Your task to perform on an android device: turn off javascript in the chrome app Image 0: 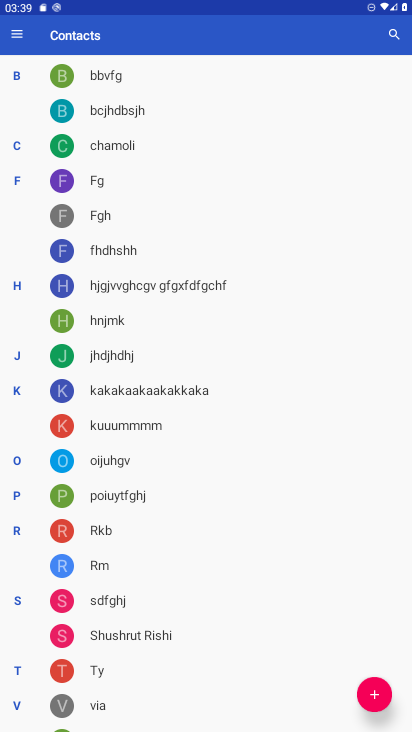
Step 0: press home button
Your task to perform on an android device: turn off javascript in the chrome app Image 1: 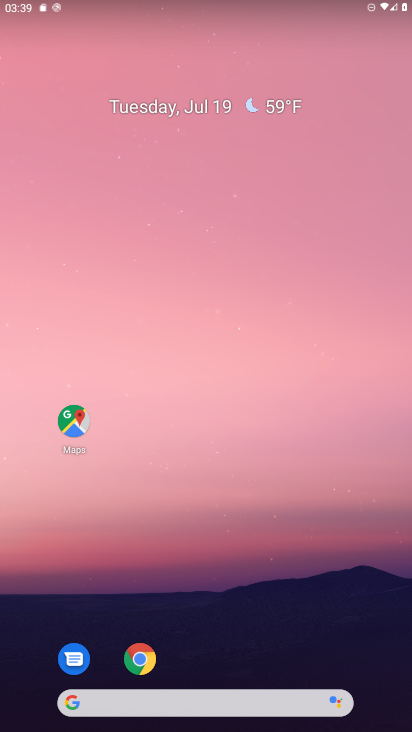
Step 1: click (139, 658)
Your task to perform on an android device: turn off javascript in the chrome app Image 2: 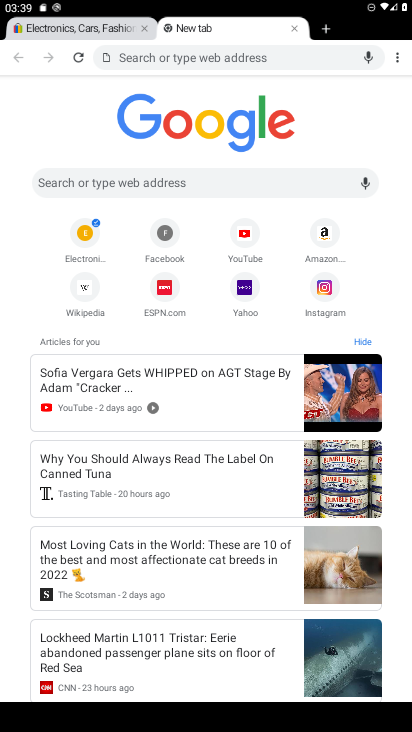
Step 2: click (396, 57)
Your task to perform on an android device: turn off javascript in the chrome app Image 3: 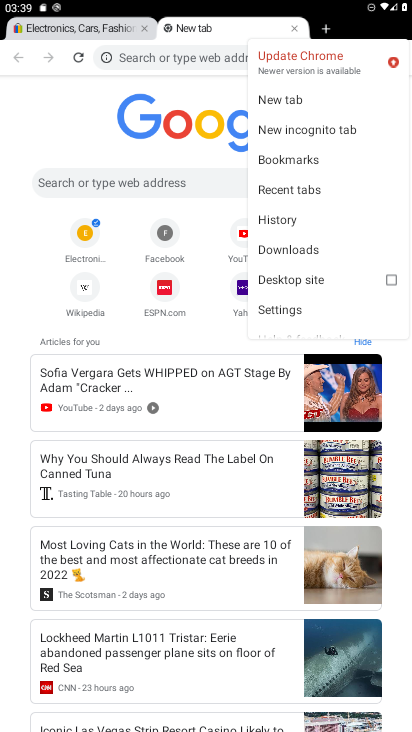
Step 3: click (283, 310)
Your task to perform on an android device: turn off javascript in the chrome app Image 4: 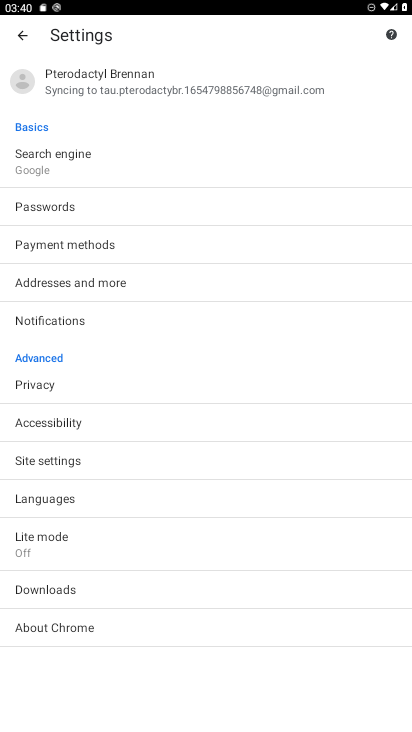
Step 4: click (61, 461)
Your task to perform on an android device: turn off javascript in the chrome app Image 5: 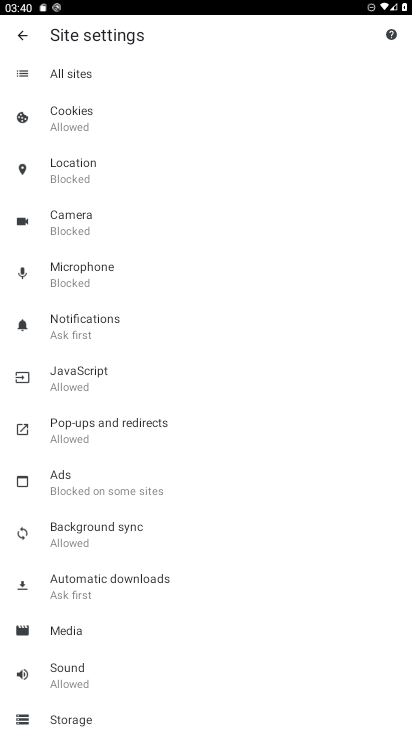
Step 5: click (79, 384)
Your task to perform on an android device: turn off javascript in the chrome app Image 6: 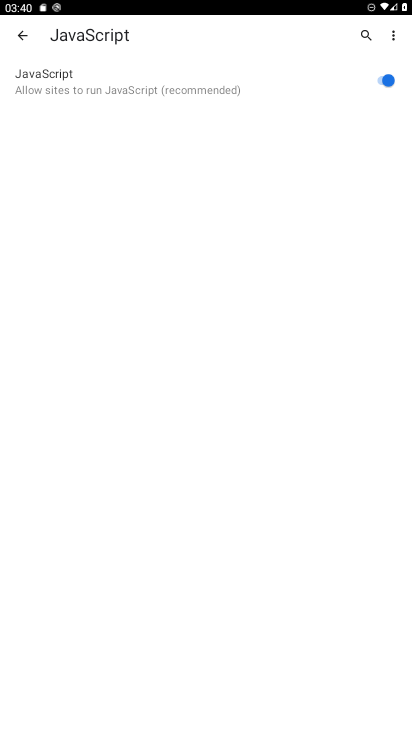
Step 6: click (381, 79)
Your task to perform on an android device: turn off javascript in the chrome app Image 7: 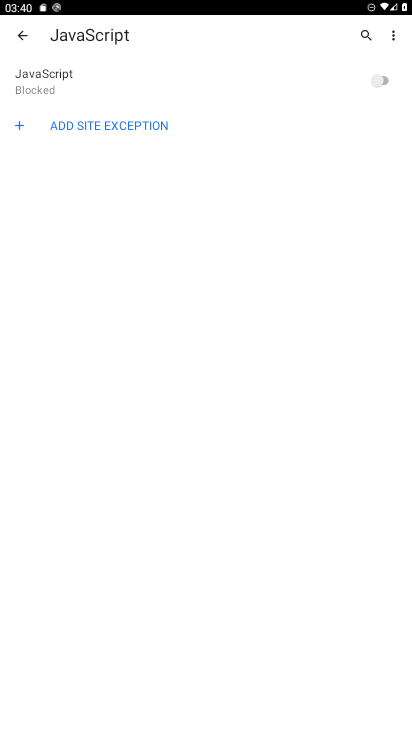
Step 7: task complete